Your task to perform on an android device: toggle notifications settings in the gmail app Image 0: 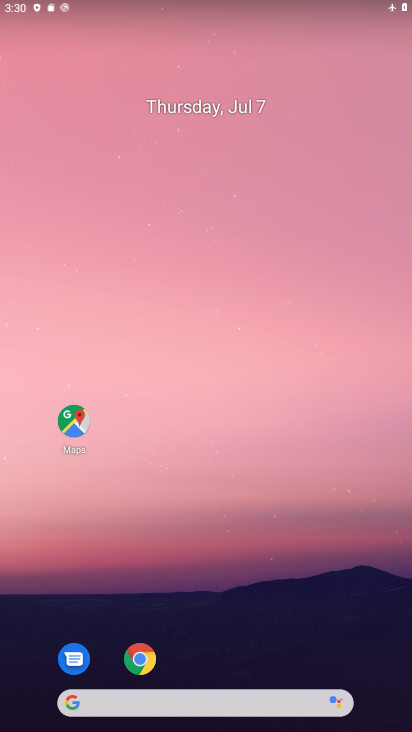
Step 0: drag from (211, 326) to (173, 10)
Your task to perform on an android device: toggle notifications settings in the gmail app Image 1: 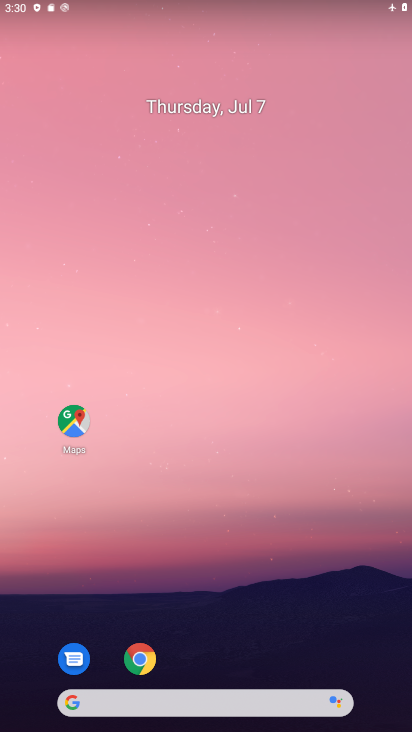
Step 1: drag from (200, 619) to (300, 22)
Your task to perform on an android device: toggle notifications settings in the gmail app Image 2: 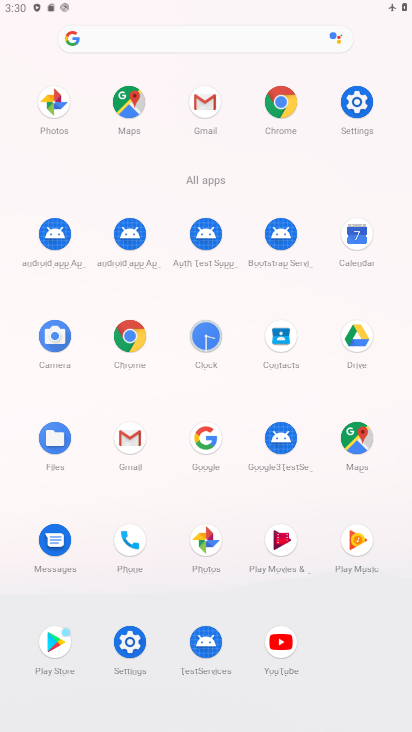
Step 2: click (135, 462)
Your task to perform on an android device: toggle notifications settings in the gmail app Image 3: 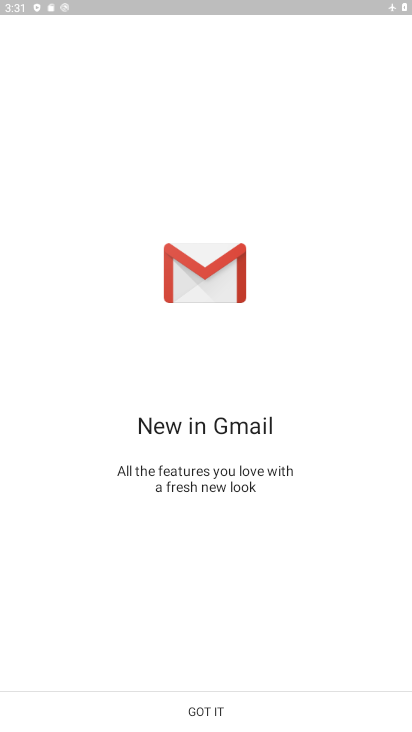
Step 3: click (228, 716)
Your task to perform on an android device: toggle notifications settings in the gmail app Image 4: 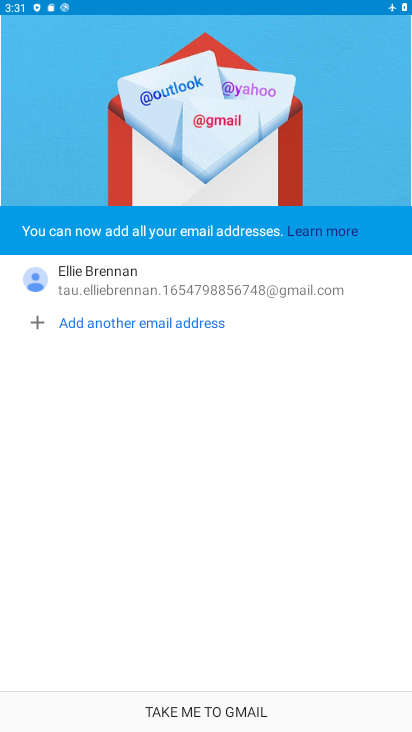
Step 4: click (225, 715)
Your task to perform on an android device: toggle notifications settings in the gmail app Image 5: 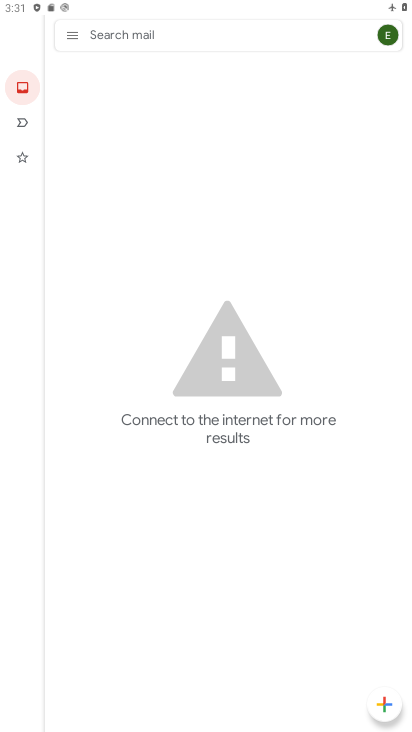
Step 5: click (71, 44)
Your task to perform on an android device: toggle notifications settings in the gmail app Image 6: 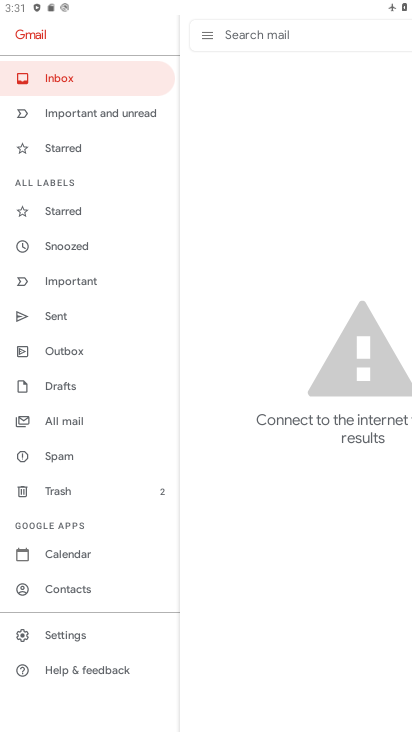
Step 6: click (75, 649)
Your task to perform on an android device: toggle notifications settings in the gmail app Image 7: 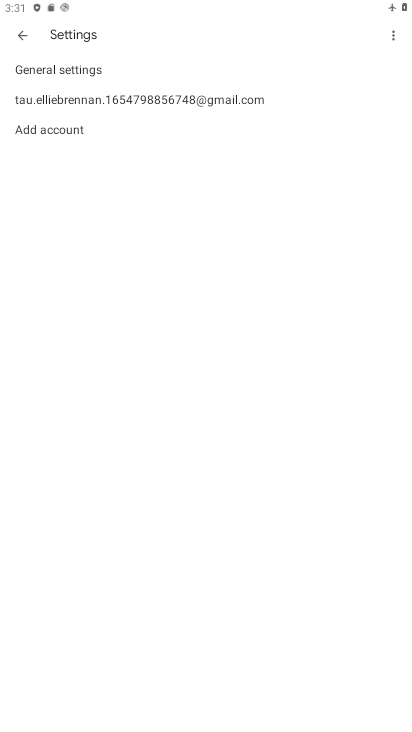
Step 7: click (90, 65)
Your task to perform on an android device: toggle notifications settings in the gmail app Image 8: 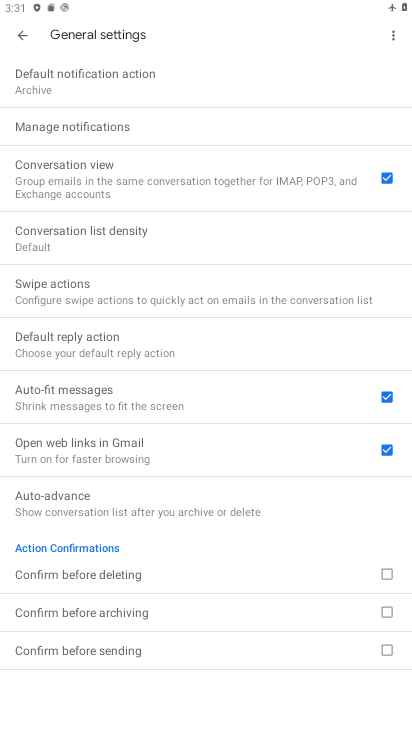
Step 8: click (97, 130)
Your task to perform on an android device: toggle notifications settings in the gmail app Image 9: 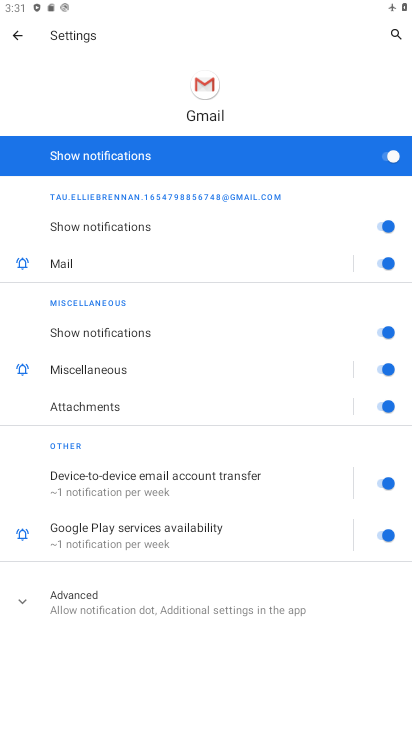
Step 9: click (370, 149)
Your task to perform on an android device: toggle notifications settings in the gmail app Image 10: 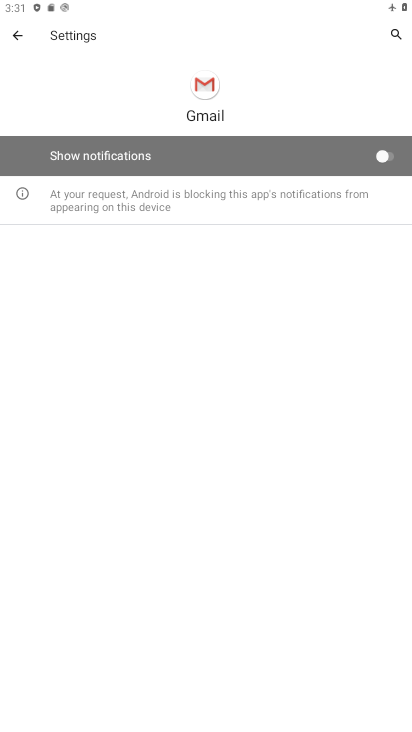
Step 10: task complete